Your task to perform on an android device: turn off location history Image 0: 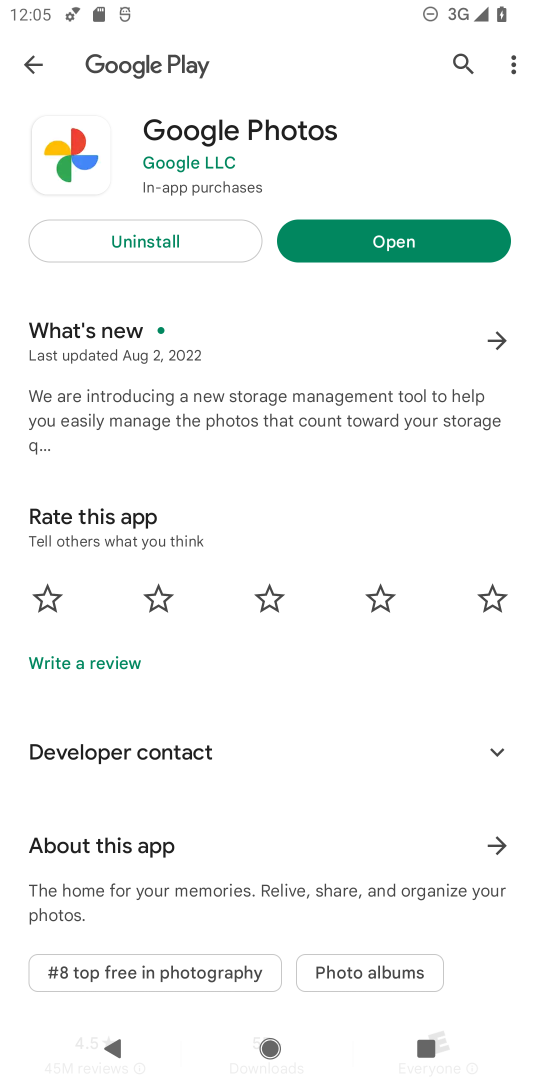
Step 0: press home button
Your task to perform on an android device: turn off location history Image 1: 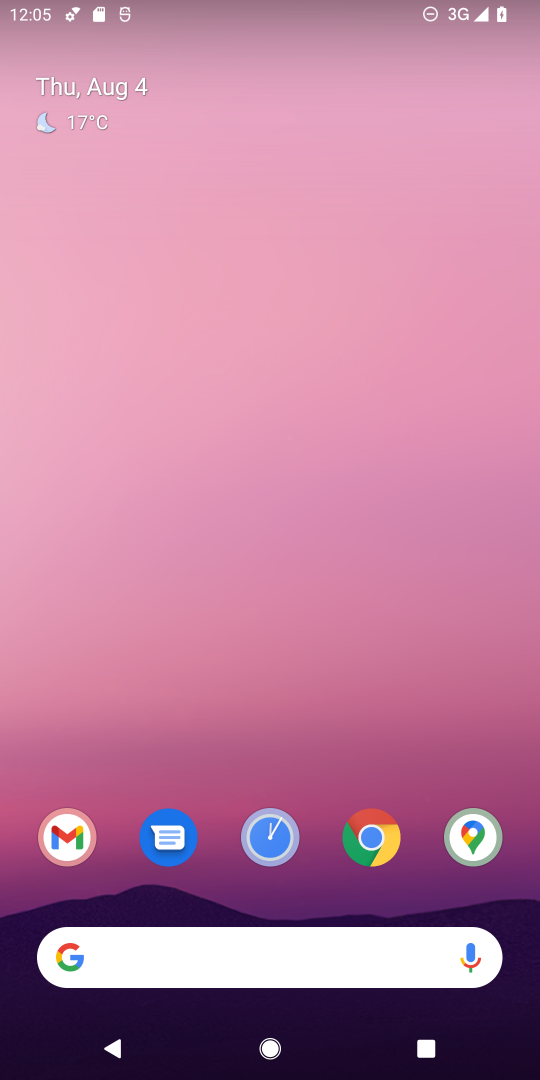
Step 1: drag from (414, 848) to (296, 110)
Your task to perform on an android device: turn off location history Image 2: 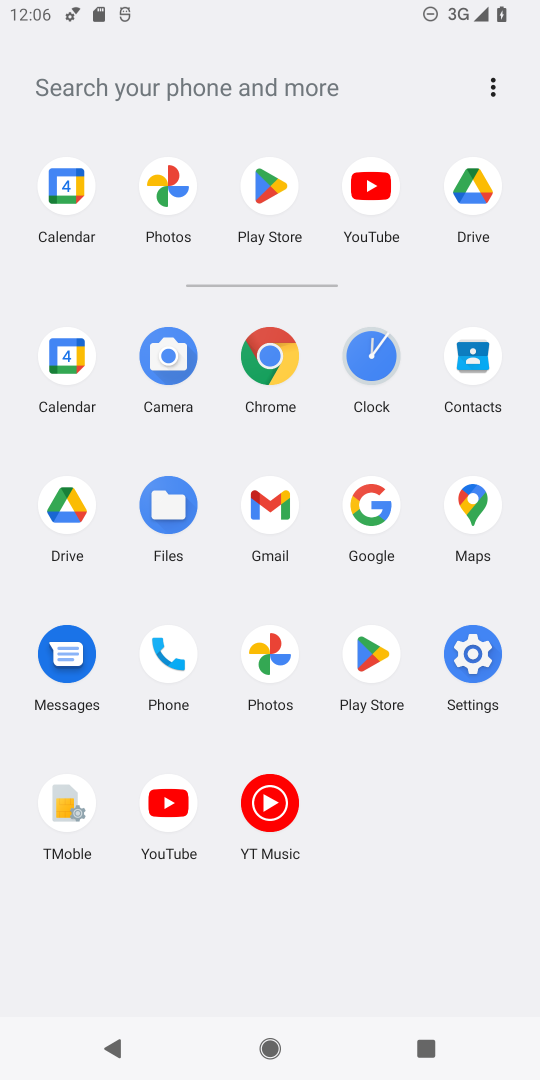
Step 2: click (479, 650)
Your task to perform on an android device: turn off location history Image 3: 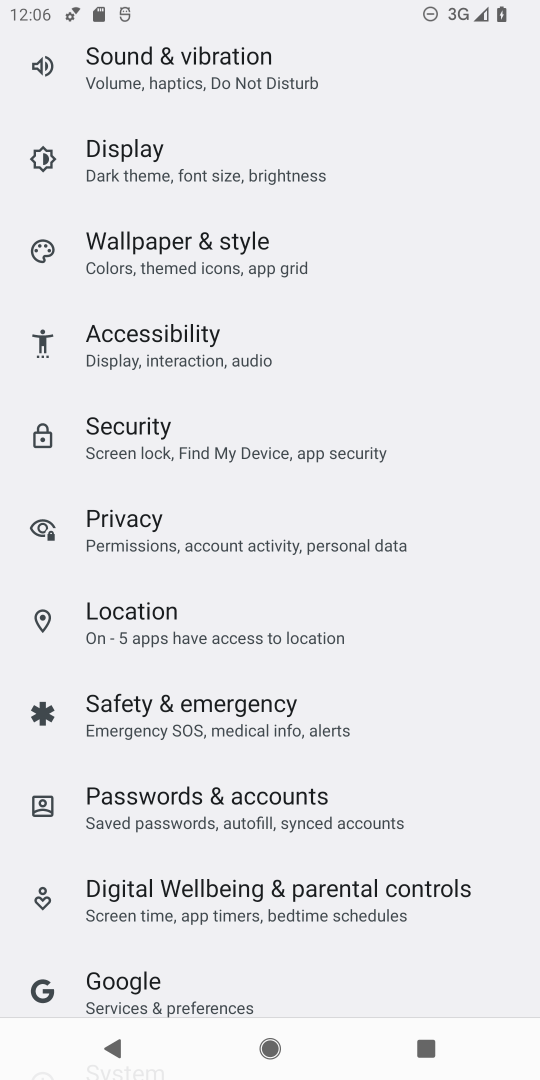
Step 3: click (110, 626)
Your task to perform on an android device: turn off location history Image 4: 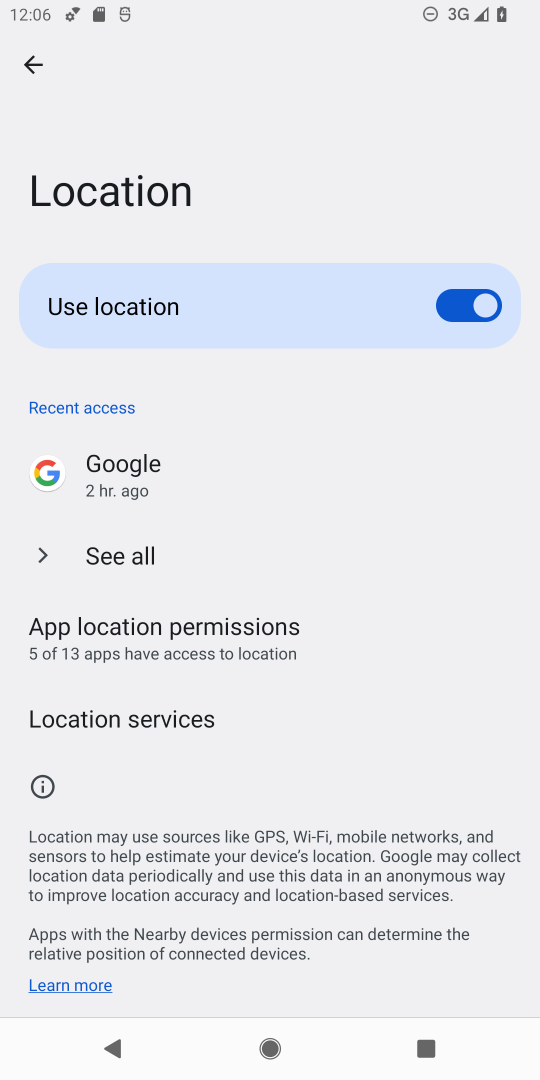
Step 4: click (153, 731)
Your task to perform on an android device: turn off location history Image 5: 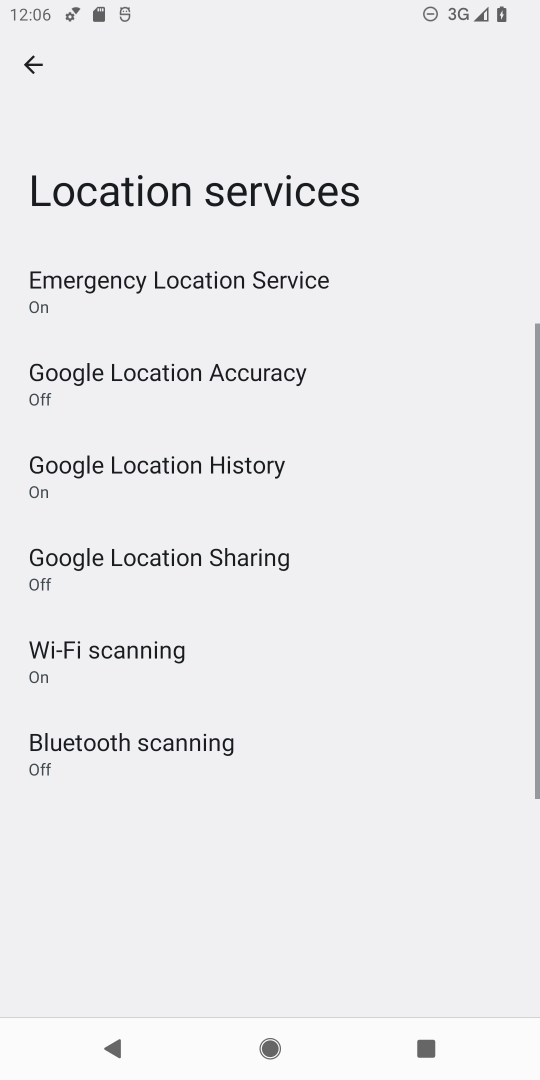
Step 5: click (240, 492)
Your task to perform on an android device: turn off location history Image 6: 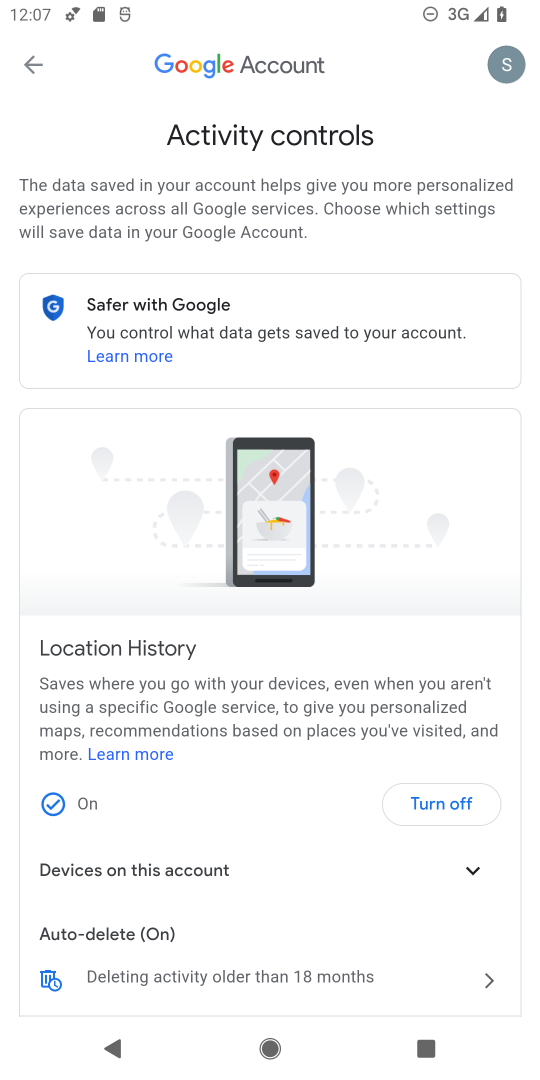
Step 6: task complete